Your task to perform on an android device: Check the news Image 0: 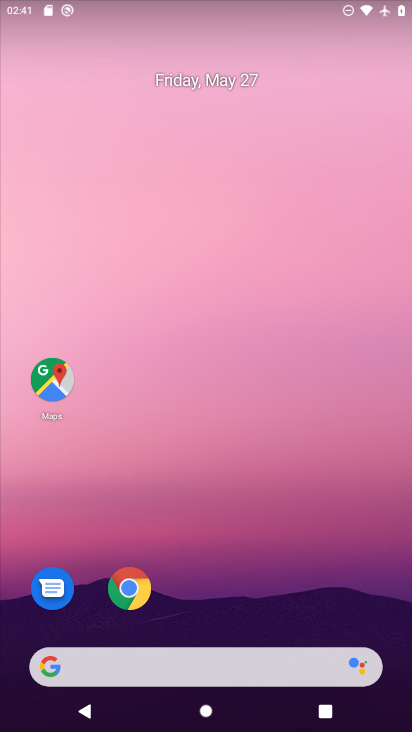
Step 0: drag from (1, 289) to (395, 284)
Your task to perform on an android device: Check the news Image 1: 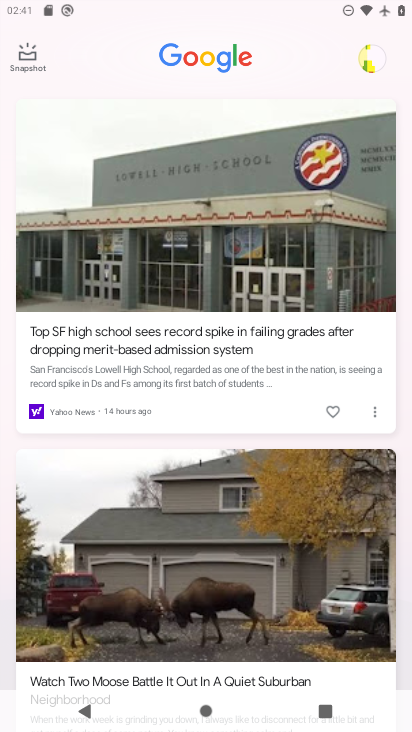
Step 1: task complete